Your task to perform on an android device: toggle improve location accuracy Image 0: 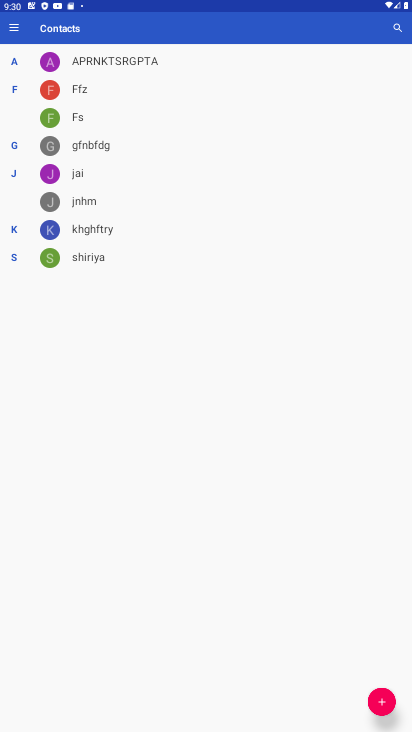
Step 0: press home button
Your task to perform on an android device: toggle improve location accuracy Image 1: 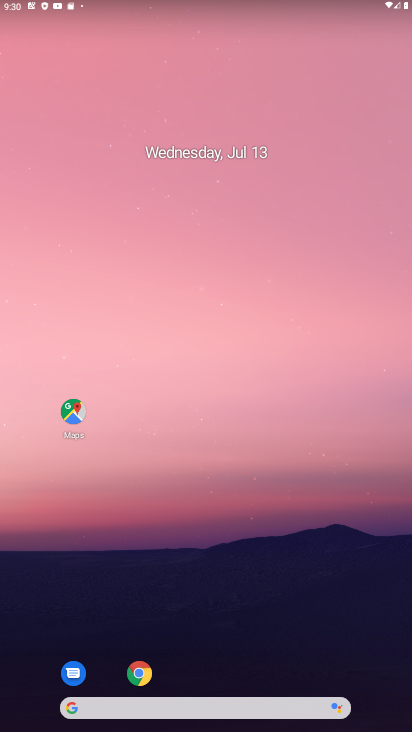
Step 1: drag from (224, 673) to (225, 98)
Your task to perform on an android device: toggle improve location accuracy Image 2: 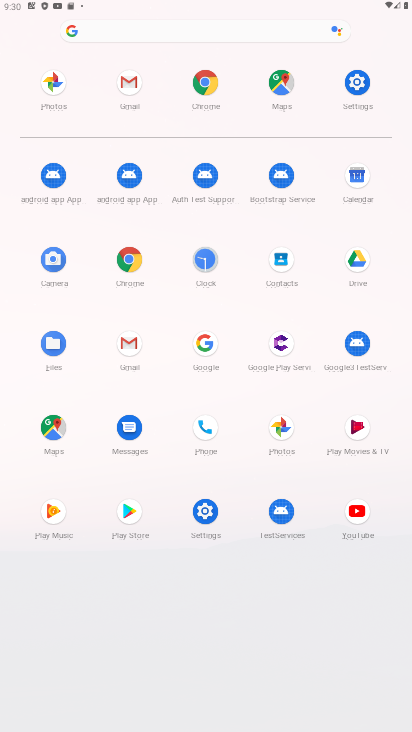
Step 2: click (368, 82)
Your task to perform on an android device: toggle improve location accuracy Image 3: 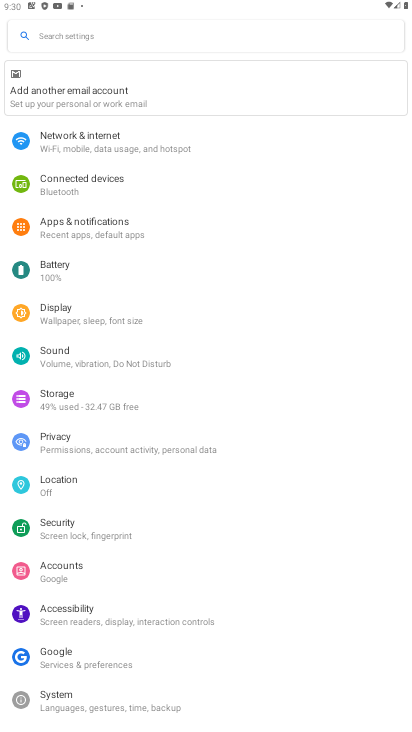
Step 3: click (54, 475)
Your task to perform on an android device: toggle improve location accuracy Image 4: 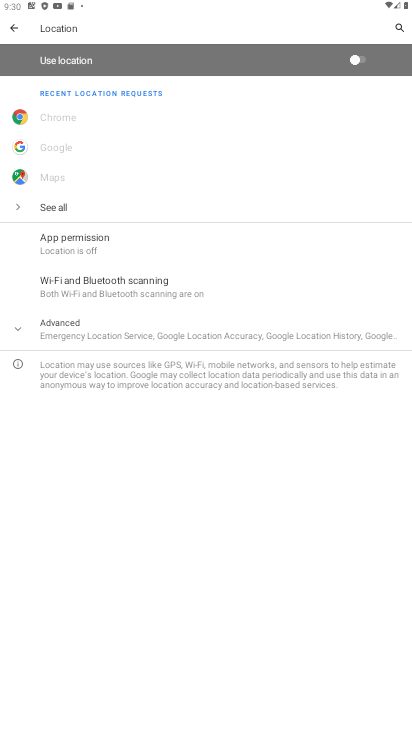
Step 4: click (113, 339)
Your task to perform on an android device: toggle improve location accuracy Image 5: 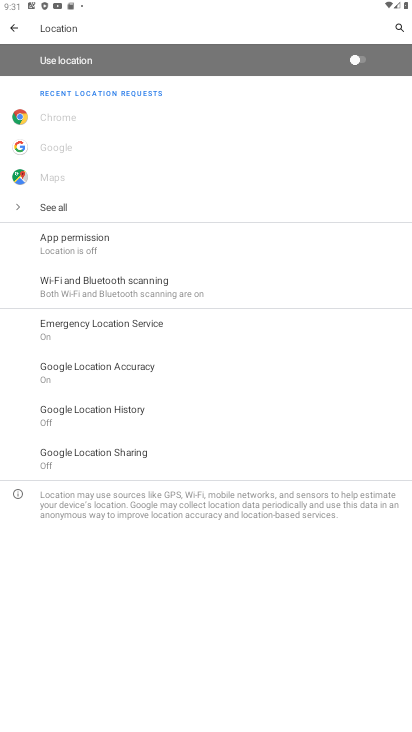
Step 5: click (177, 368)
Your task to perform on an android device: toggle improve location accuracy Image 6: 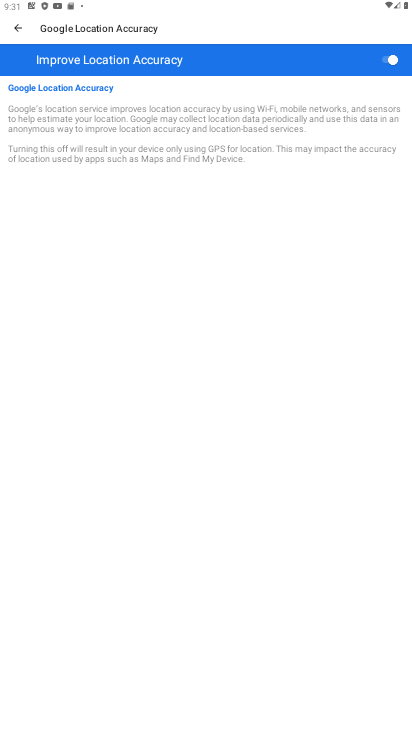
Step 6: click (392, 60)
Your task to perform on an android device: toggle improve location accuracy Image 7: 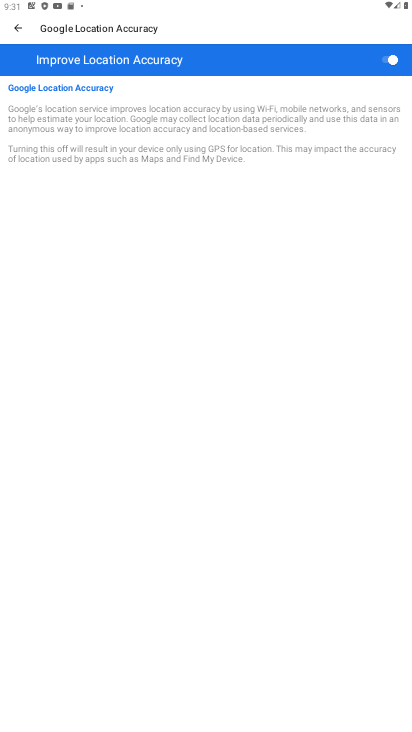
Step 7: click (392, 60)
Your task to perform on an android device: toggle improve location accuracy Image 8: 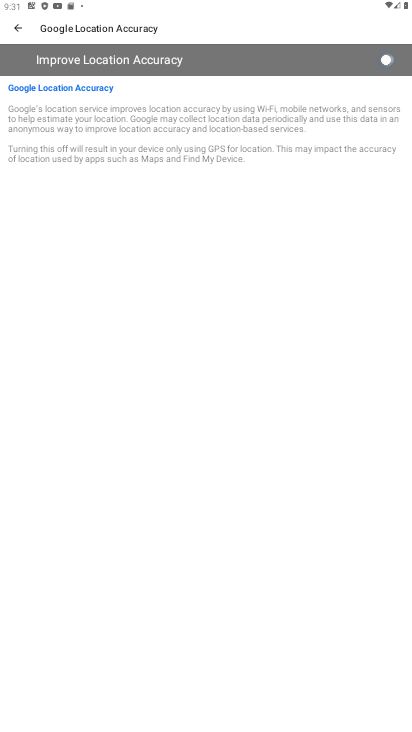
Step 8: click (392, 60)
Your task to perform on an android device: toggle improve location accuracy Image 9: 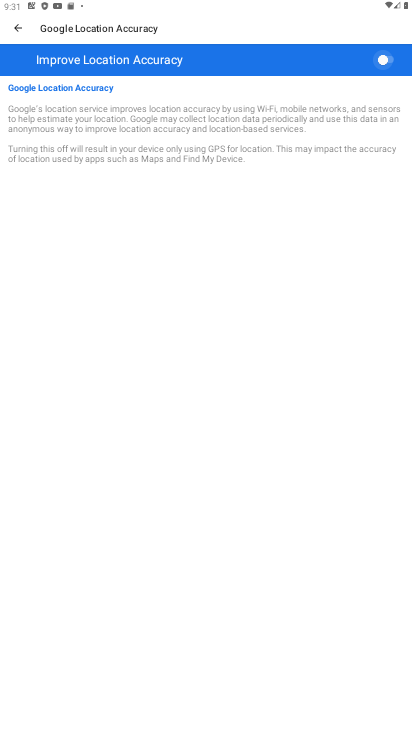
Step 9: click (392, 60)
Your task to perform on an android device: toggle improve location accuracy Image 10: 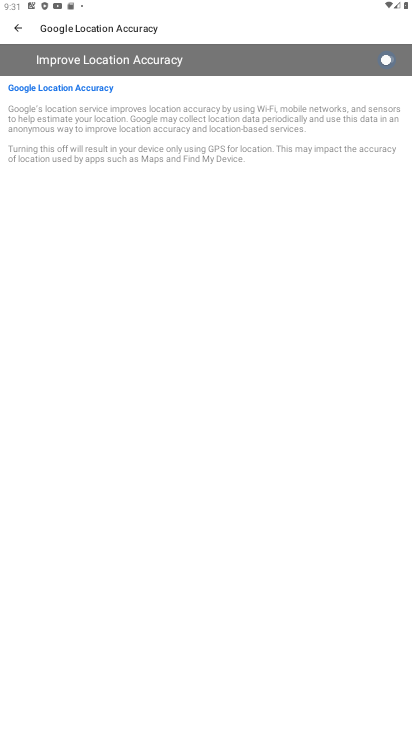
Step 10: click (392, 60)
Your task to perform on an android device: toggle improve location accuracy Image 11: 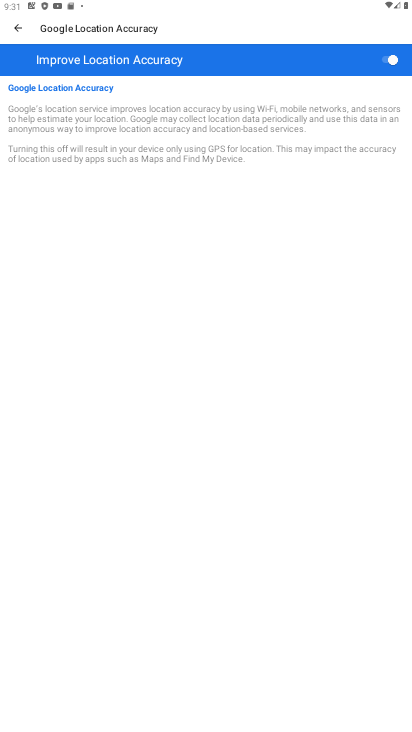
Step 11: click (392, 60)
Your task to perform on an android device: toggle improve location accuracy Image 12: 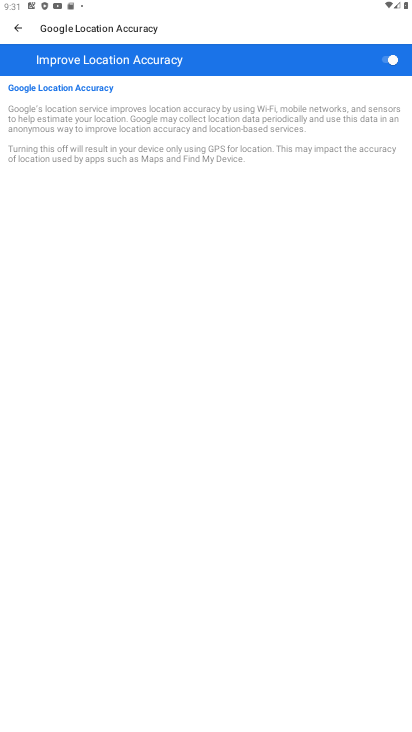
Step 12: click (392, 60)
Your task to perform on an android device: toggle improve location accuracy Image 13: 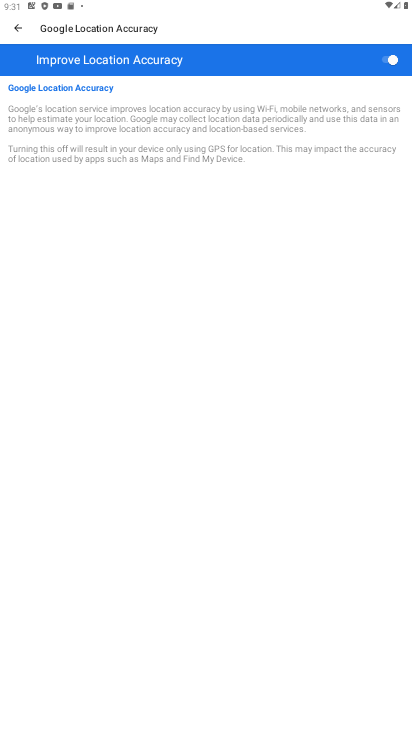
Step 13: task complete